Your task to perform on an android device: Go to Amazon Image 0: 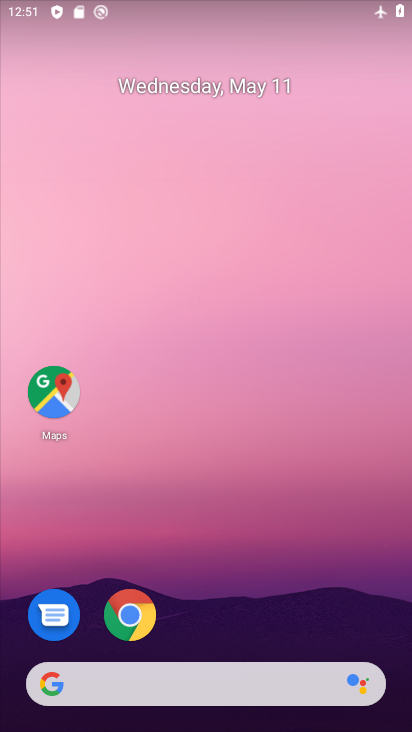
Step 0: drag from (365, 470) to (341, 244)
Your task to perform on an android device: Go to Amazon Image 1: 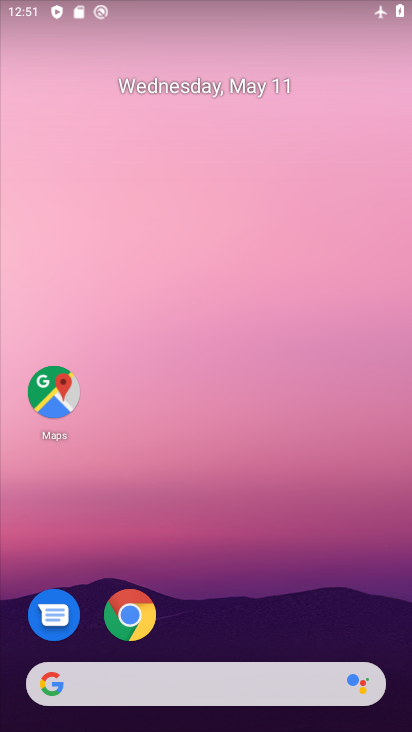
Step 1: drag from (249, 549) to (313, 178)
Your task to perform on an android device: Go to Amazon Image 2: 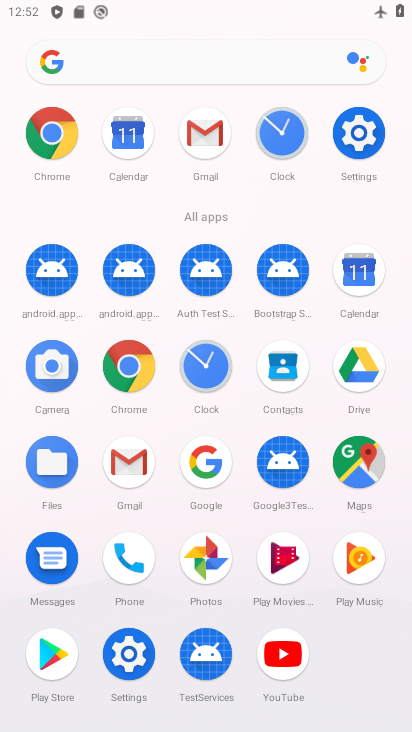
Step 2: drag from (182, 637) to (193, 396)
Your task to perform on an android device: Go to Amazon Image 3: 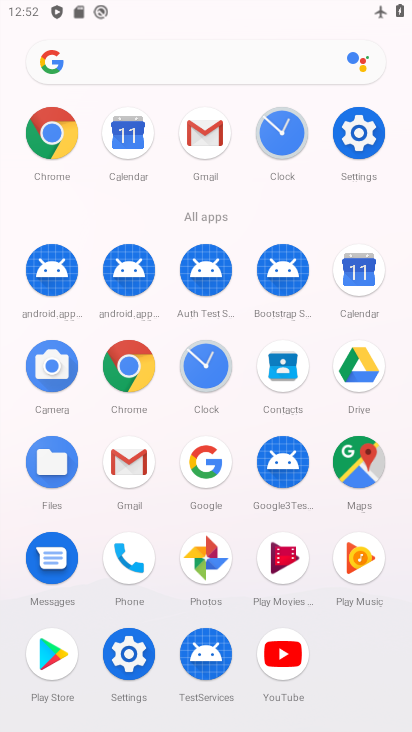
Step 3: drag from (155, 230) to (154, 534)
Your task to perform on an android device: Go to Amazon Image 4: 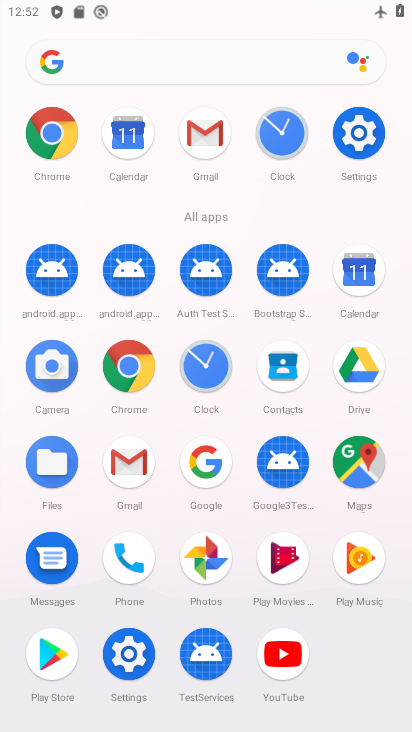
Step 4: click (154, 384)
Your task to perform on an android device: Go to Amazon Image 5: 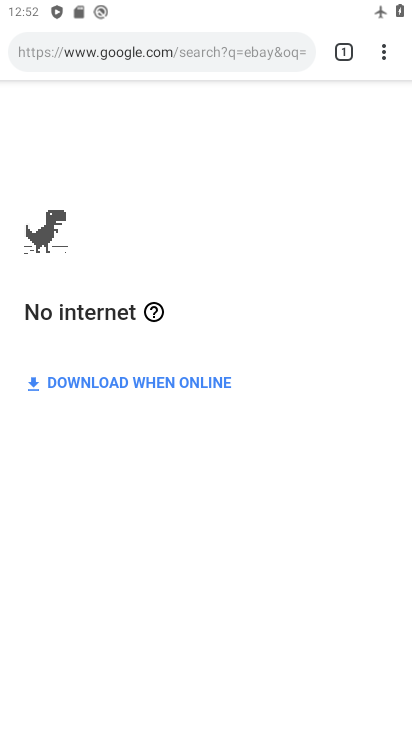
Step 5: task complete